Your task to perform on an android device: Go to ESPN.com Image 0: 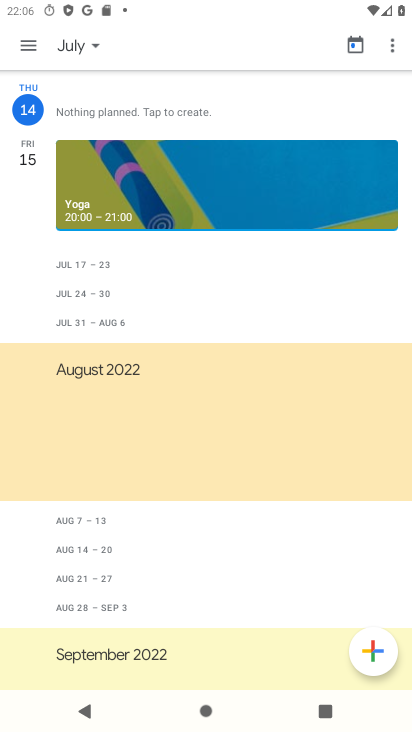
Step 0: press home button
Your task to perform on an android device: Go to ESPN.com Image 1: 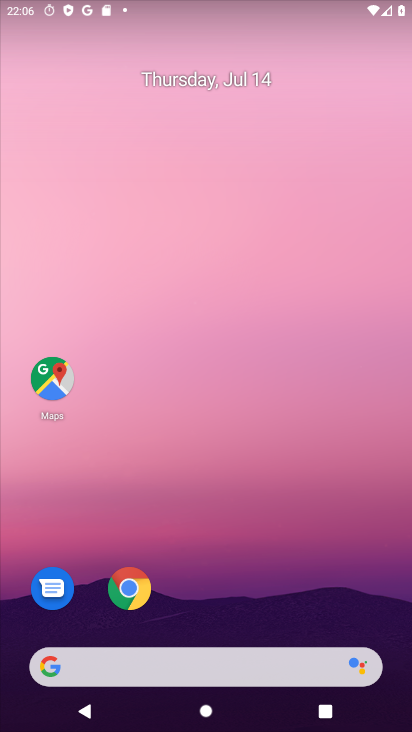
Step 1: drag from (210, 610) to (229, 127)
Your task to perform on an android device: Go to ESPN.com Image 2: 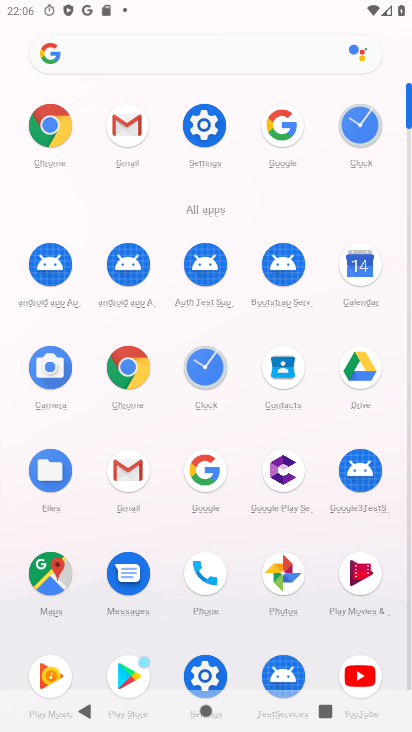
Step 2: click (279, 126)
Your task to perform on an android device: Go to ESPN.com Image 3: 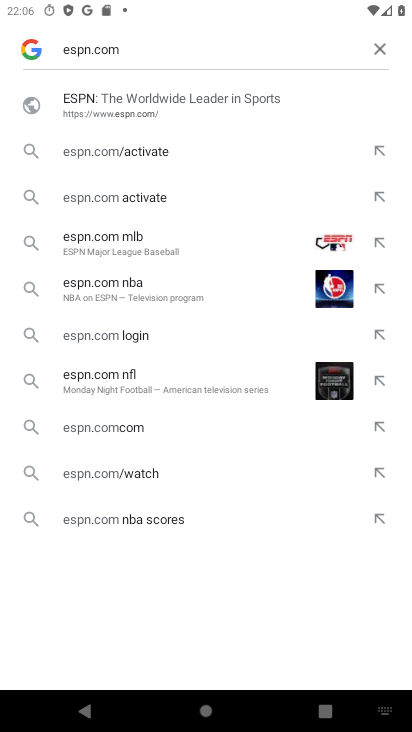
Step 3: click (175, 90)
Your task to perform on an android device: Go to ESPN.com Image 4: 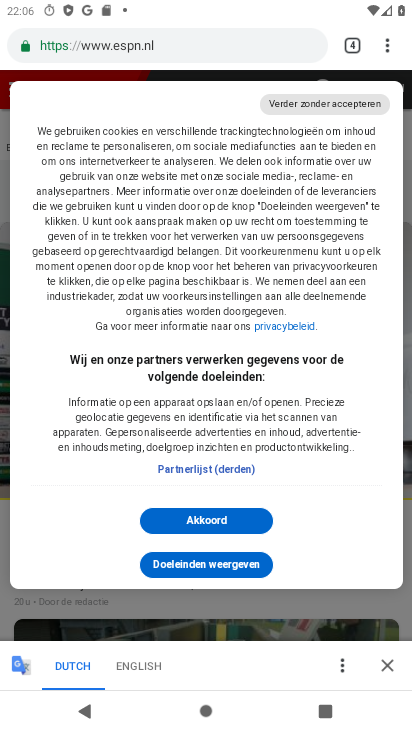
Step 4: task complete